Your task to perform on an android device: View the shopping cart on costco.com. Add "corsair k70" to the cart on costco.com Image 0: 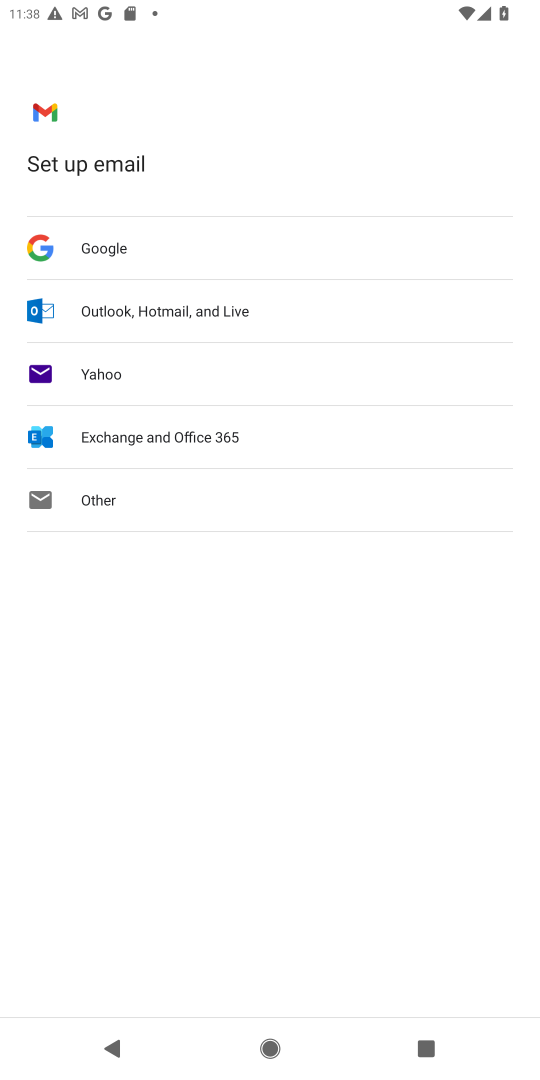
Step 0: press home button
Your task to perform on an android device: View the shopping cart on costco.com. Add "corsair k70" to the cart on costco.com Image 1: 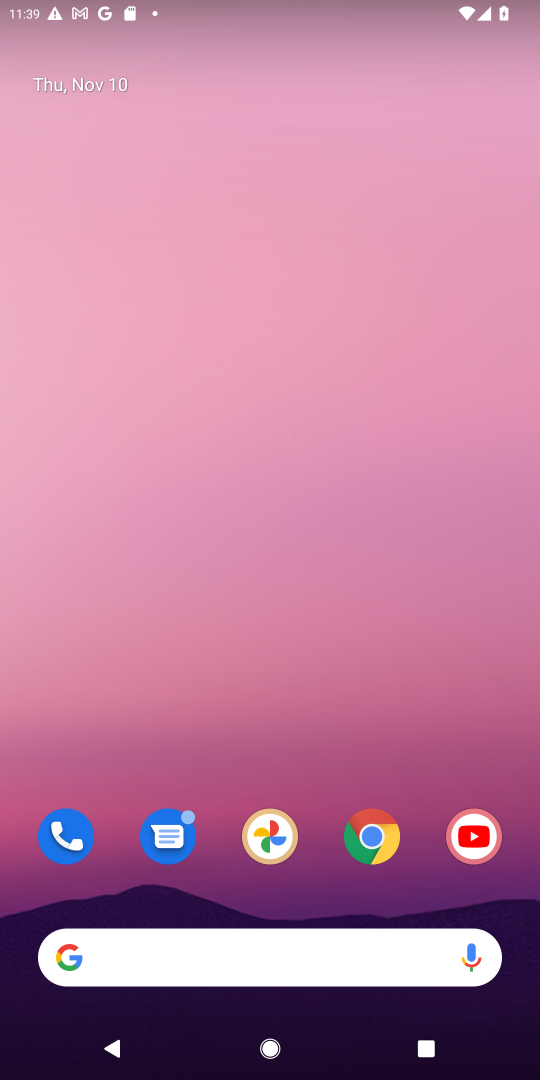
Step 1: click (257, 955)
Your task to perform on an android device: View the shopping cart on costco.com. Add "corsair k70" to the cart on costco.com Image 2: 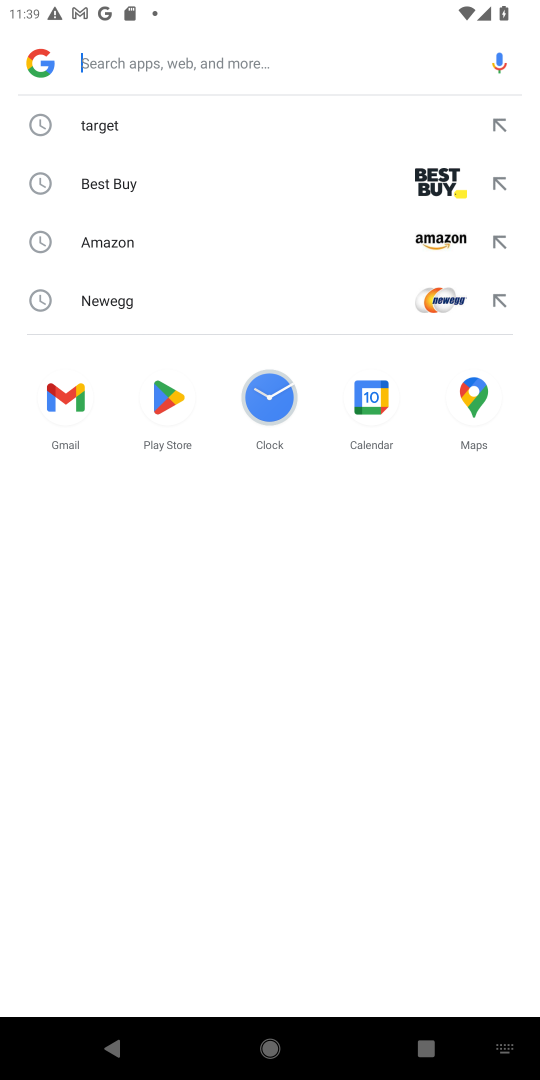
Step 2: type "costco.com"
Your task to perform on an android device: View the shopping cart on costco.com. Add "corsair k70" to the cart on costco.com Image 3: 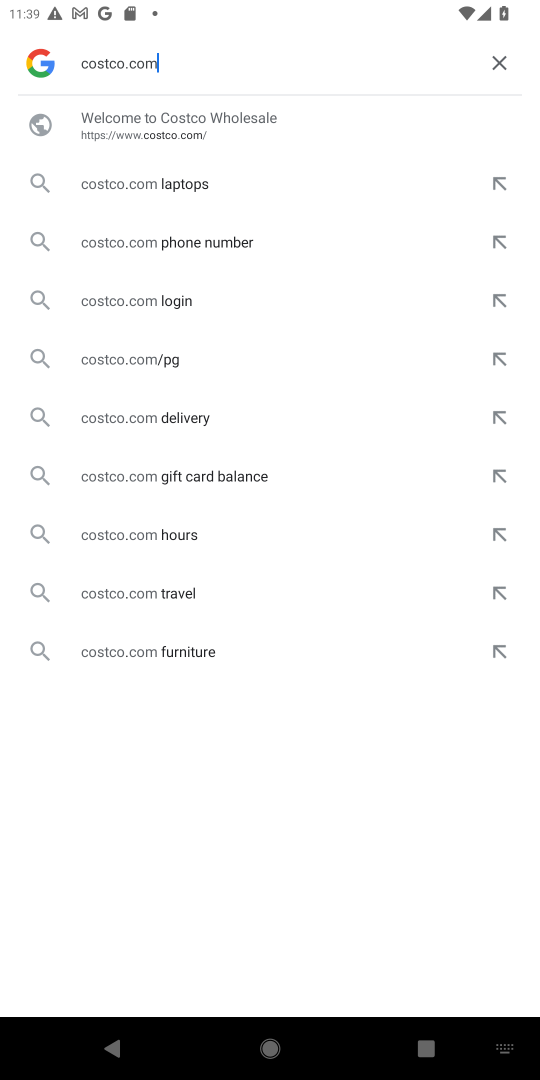
Step 3: click (189, 121)
Your task to perform on an android device: View the shopping cart on costco.com. Add "corsair k70" to the cart on costco.com Image 4: 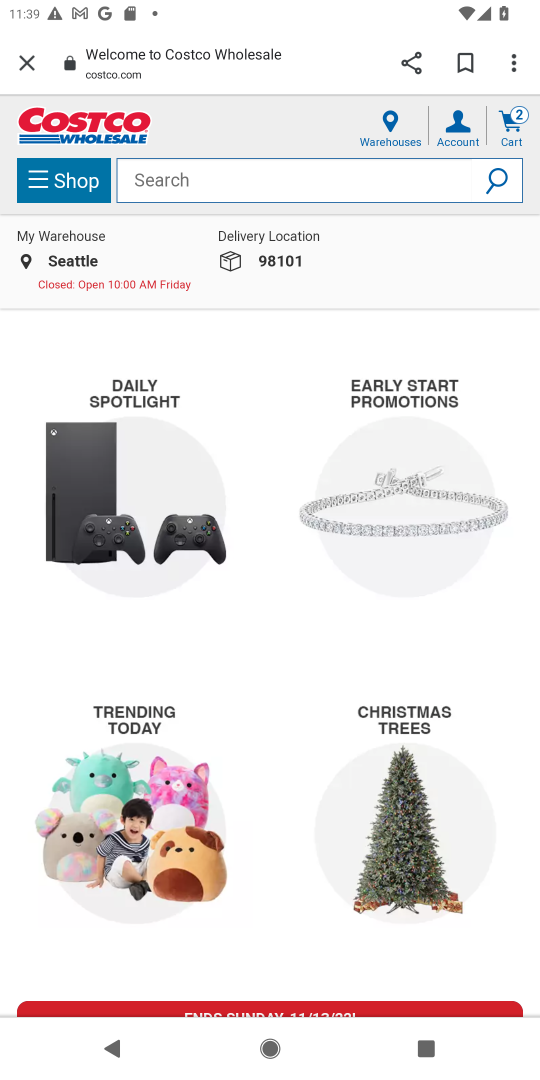
Step 4: click (176, 179)
Your task to perform on an android device: View the shopping cart on costco.com. Add "corsair k70" to the cart on costco.com Image 5: 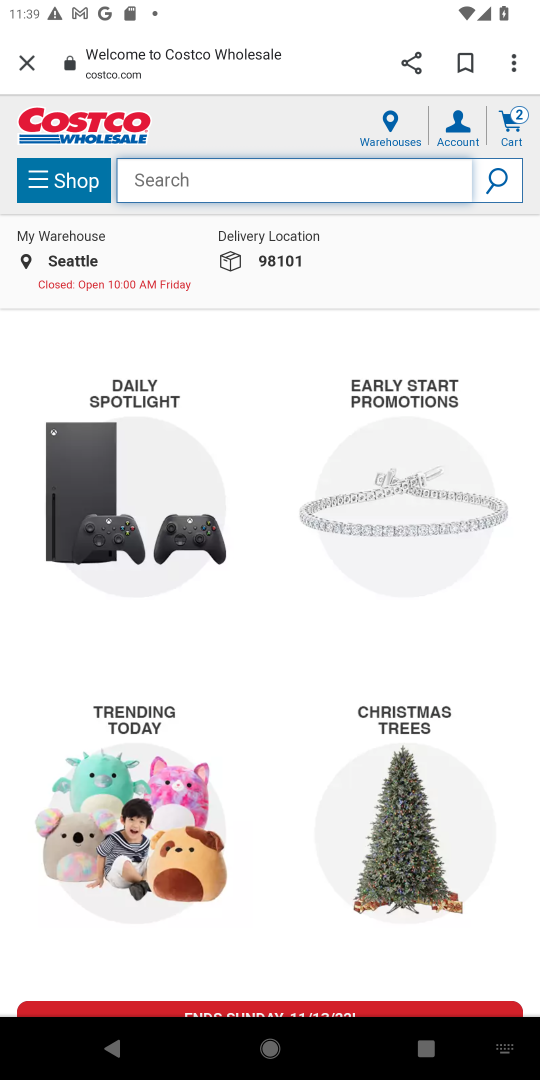
Step 5: type "corsair k70"
Your task to perform on an android device: View the shopping cart on costco.com. Add "corsair k70" to the cart on costco.com Image 6: 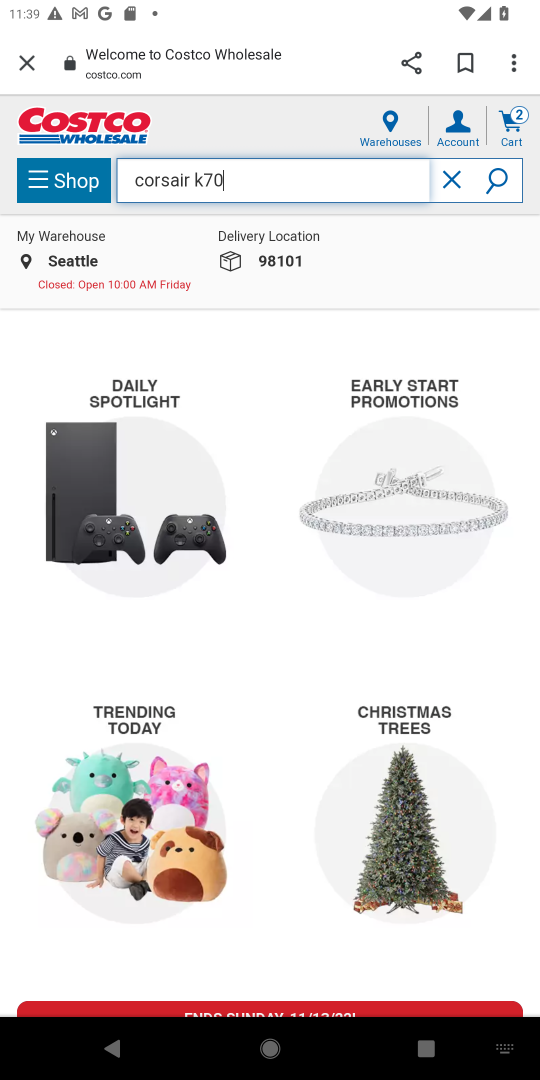
Step 6: click (495, 169)
Your task to perform on an android device: View the shopping cart on costco.com. Add "corsair k70" to the cart on costco.com Image 7: 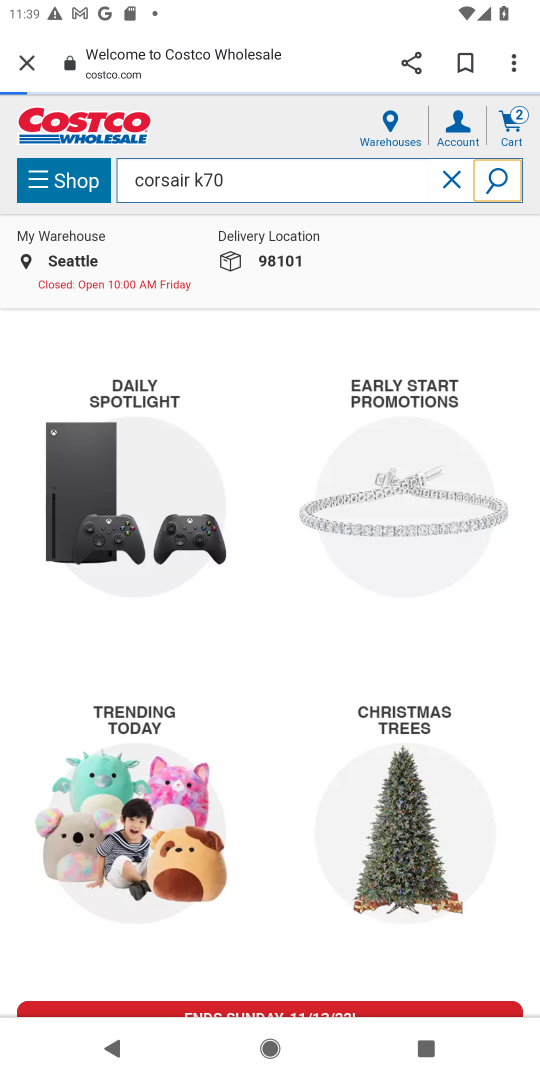
Step 7: click (495, 185)
Your task to perform on an android device: View the shopping cart on costco.com. Add "corsair k70" to the cart on costco.com Image 8: 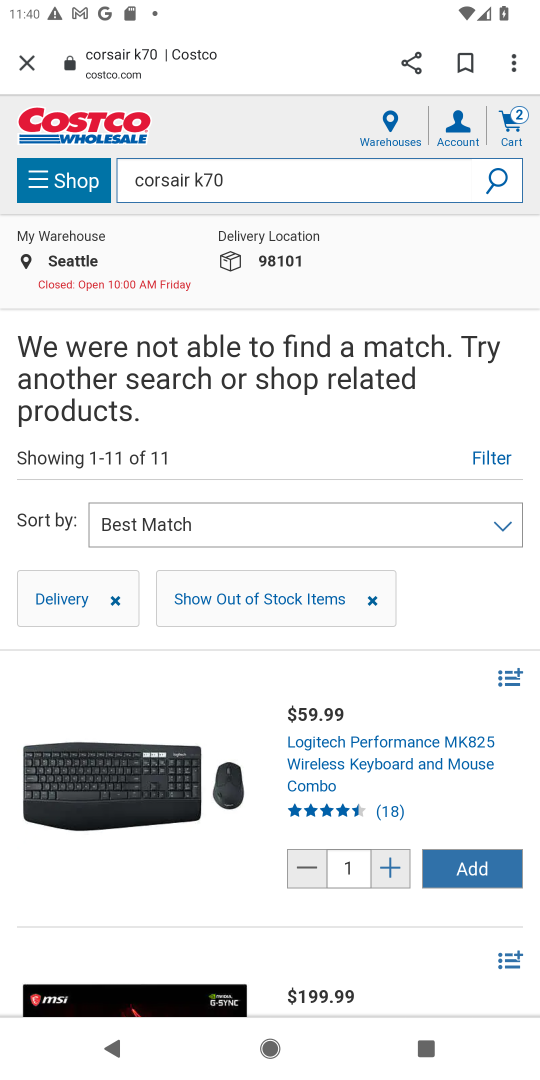
Step 8: click (476, 865)
Your task to perform on an android device: View the shopping cart on costco.com. Add "corsair k70" to the cart on costco.com Image 9: 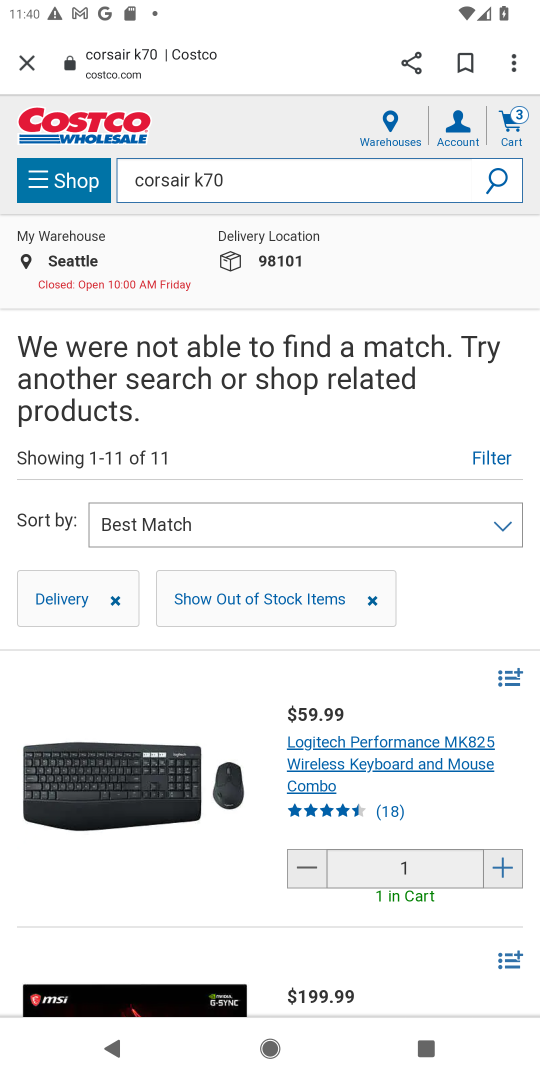
Step 9: task complete